Your task to perform on an android device: Clear all items from cart on target.com. Add "jbl charge 4" to the cart on target.com, then select checkout. Image 0: 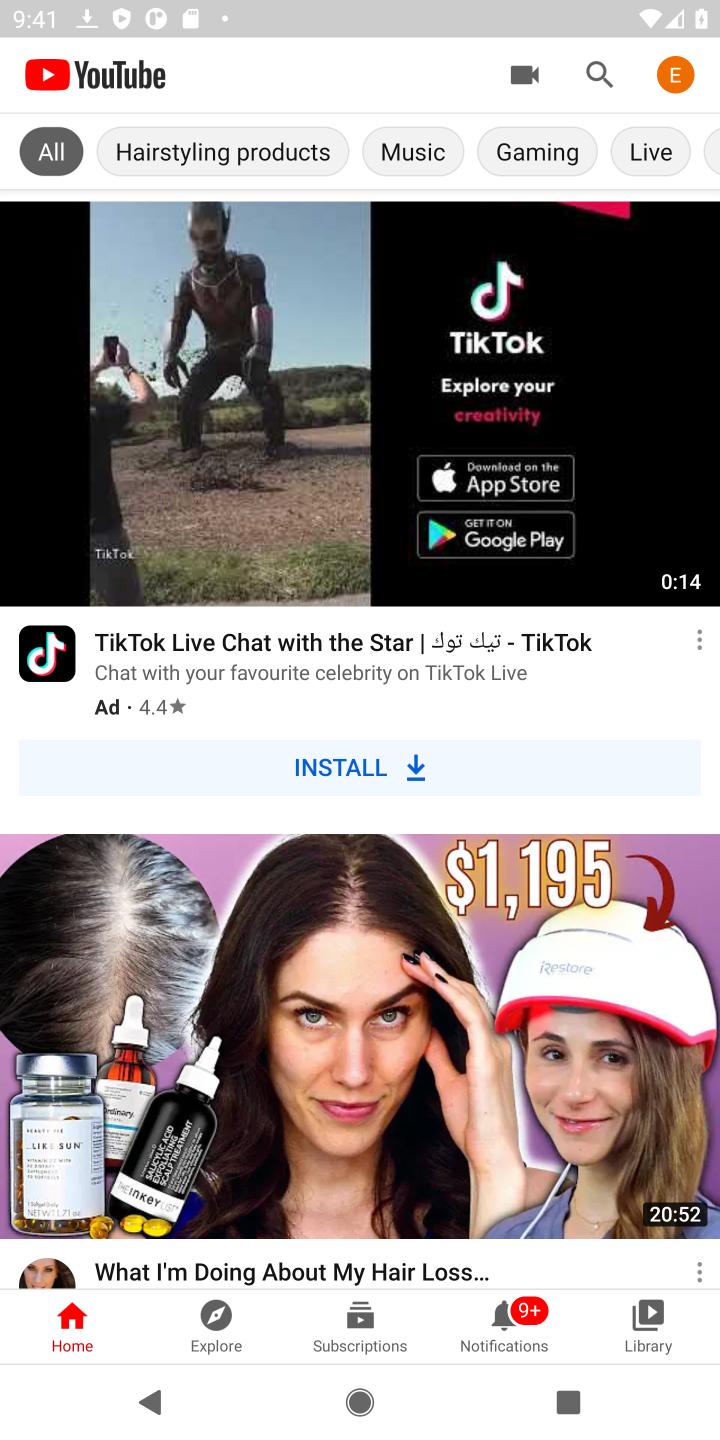
Step 0: press home button
Your task to perform on an android device: Clear all items from cart on target.com. Add "jbl charge 4" to the cart on target.com, then select checkout. Image 1: 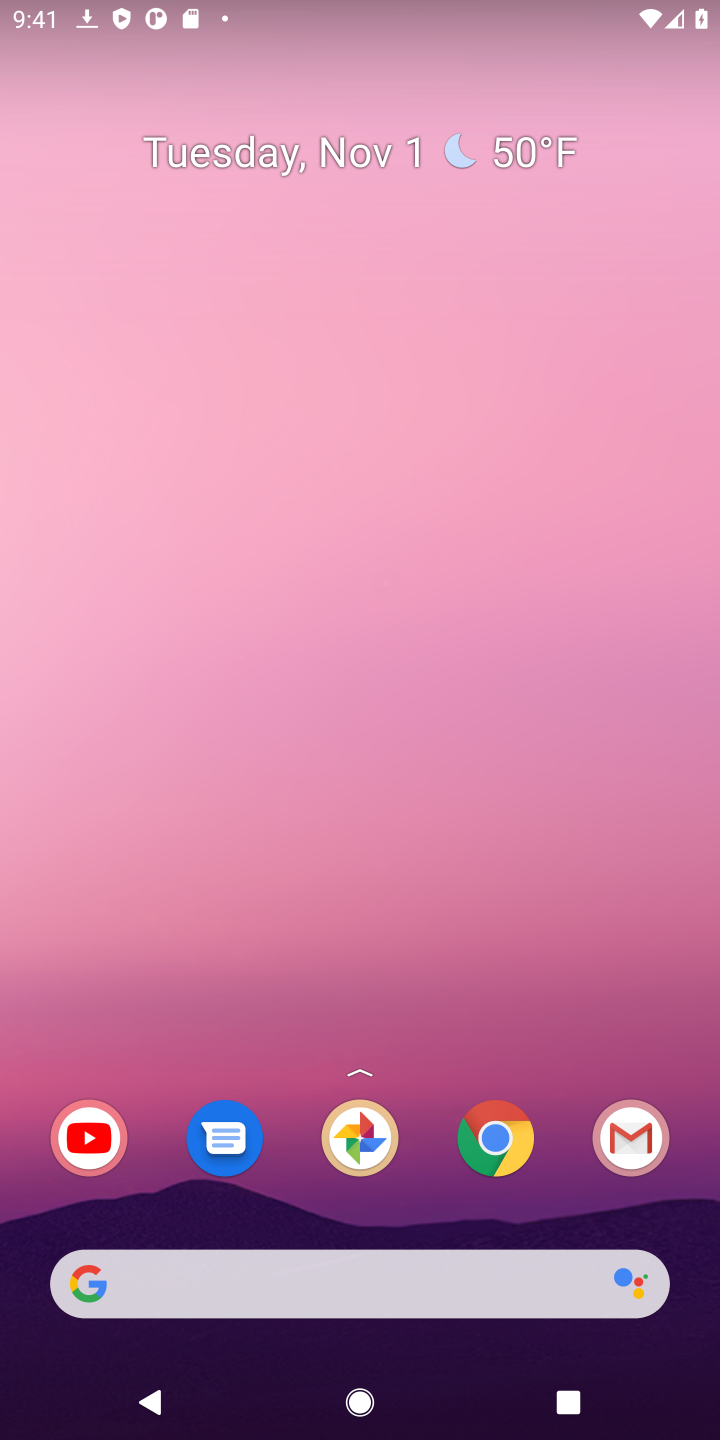
Step 1: click (495, 1140)
Your task to perform on an android device: Clear all items from cart on target.com. Add "jbl charge 4" to the cart on target.com, then select checkout. Image 2: 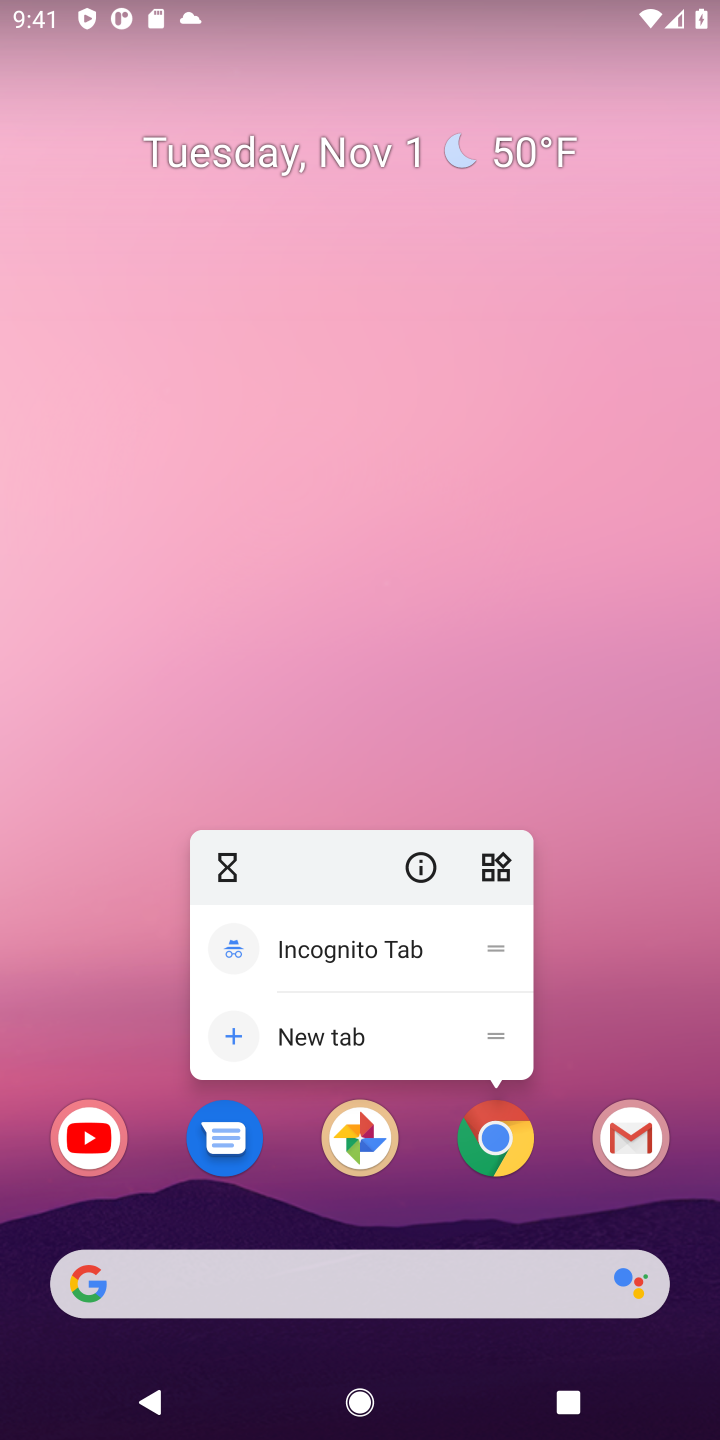
Step 2: click (500, 1141)
Your task to perform on an android device: Clear all items from cart on target.com. Add "jbl charge 4" to the cart on target.com, then select checkout. Image 3: 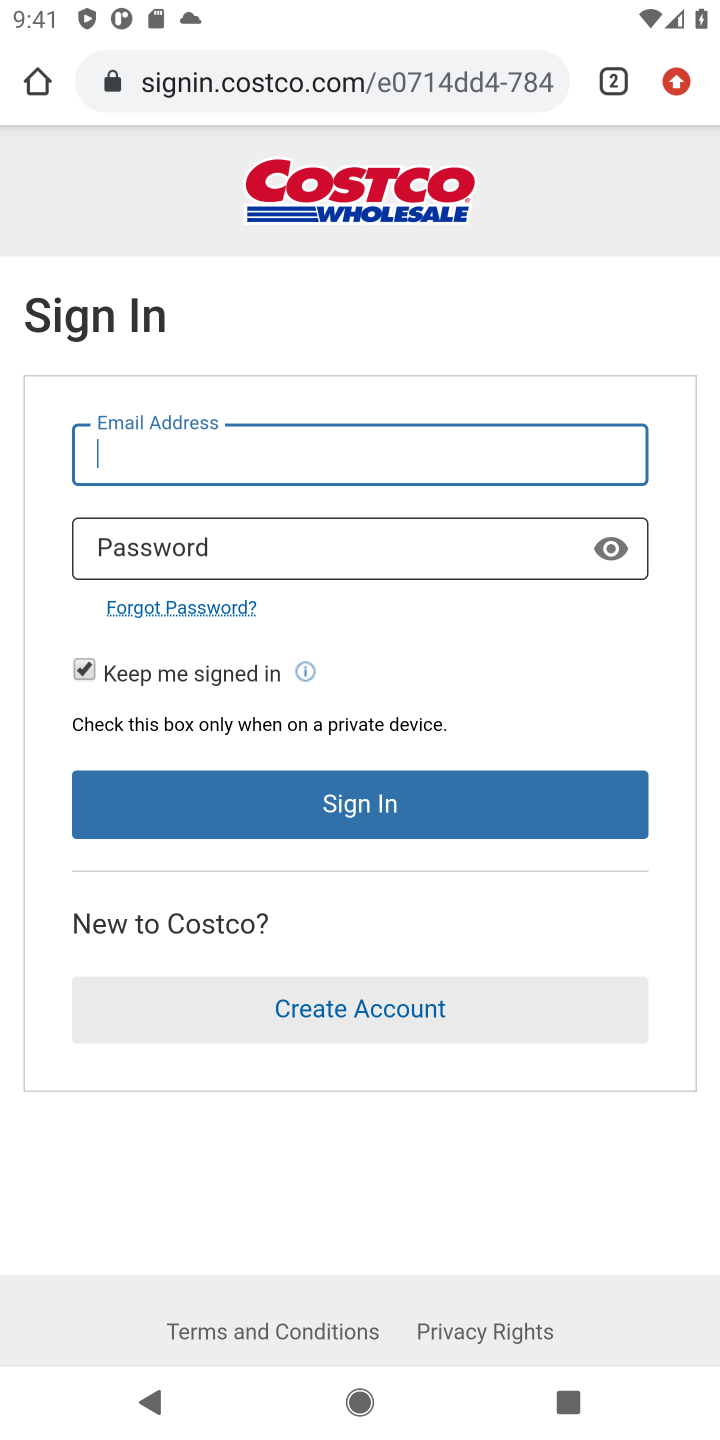
Step 3: click (259, 85)
Your task to perform on an android device: Clear all items from cart on target.com. Add "jbl charge 4" to the cart on target.com, then select checkout. Image 4: 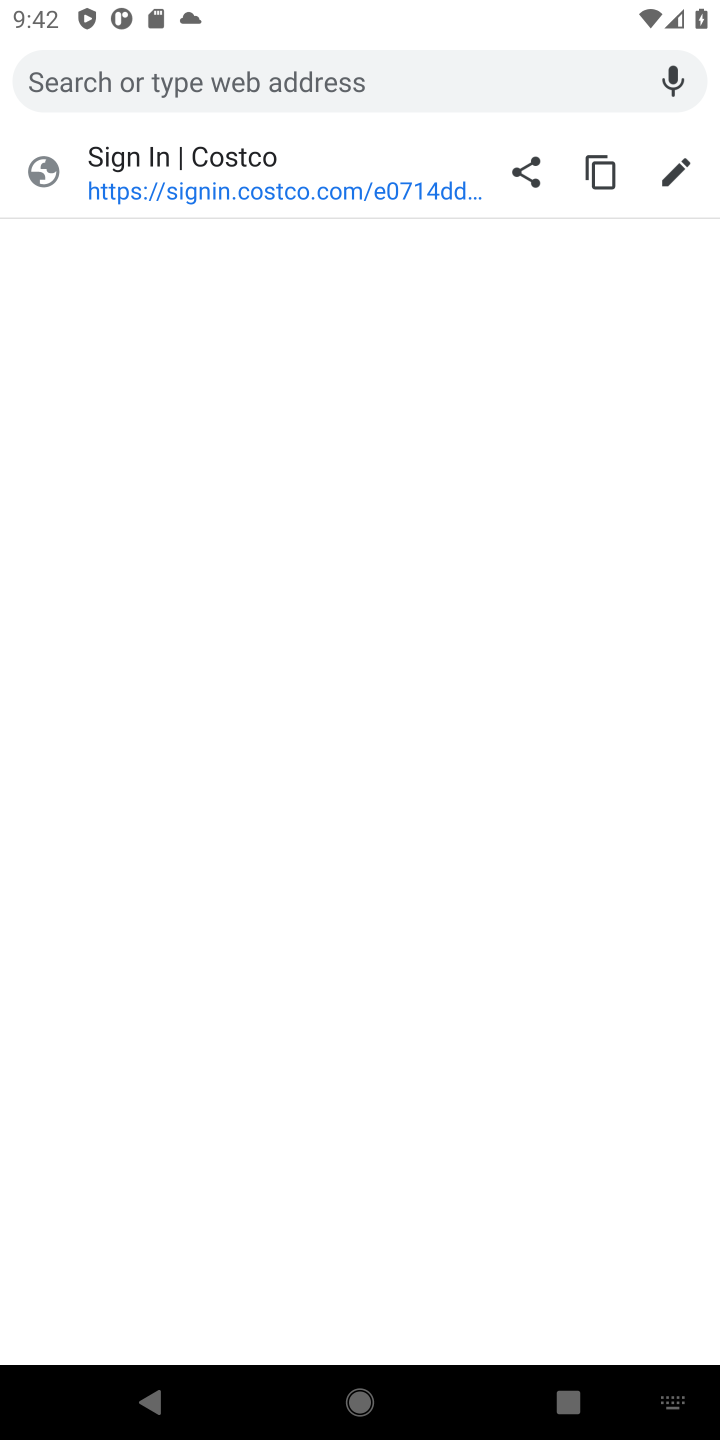
Step 4: type "target.com"
Your task to perform on an android device: Clear all items from cart on target.com. Add "jbl charge 4" to the cart on target.com, then select checkout. Image 5: 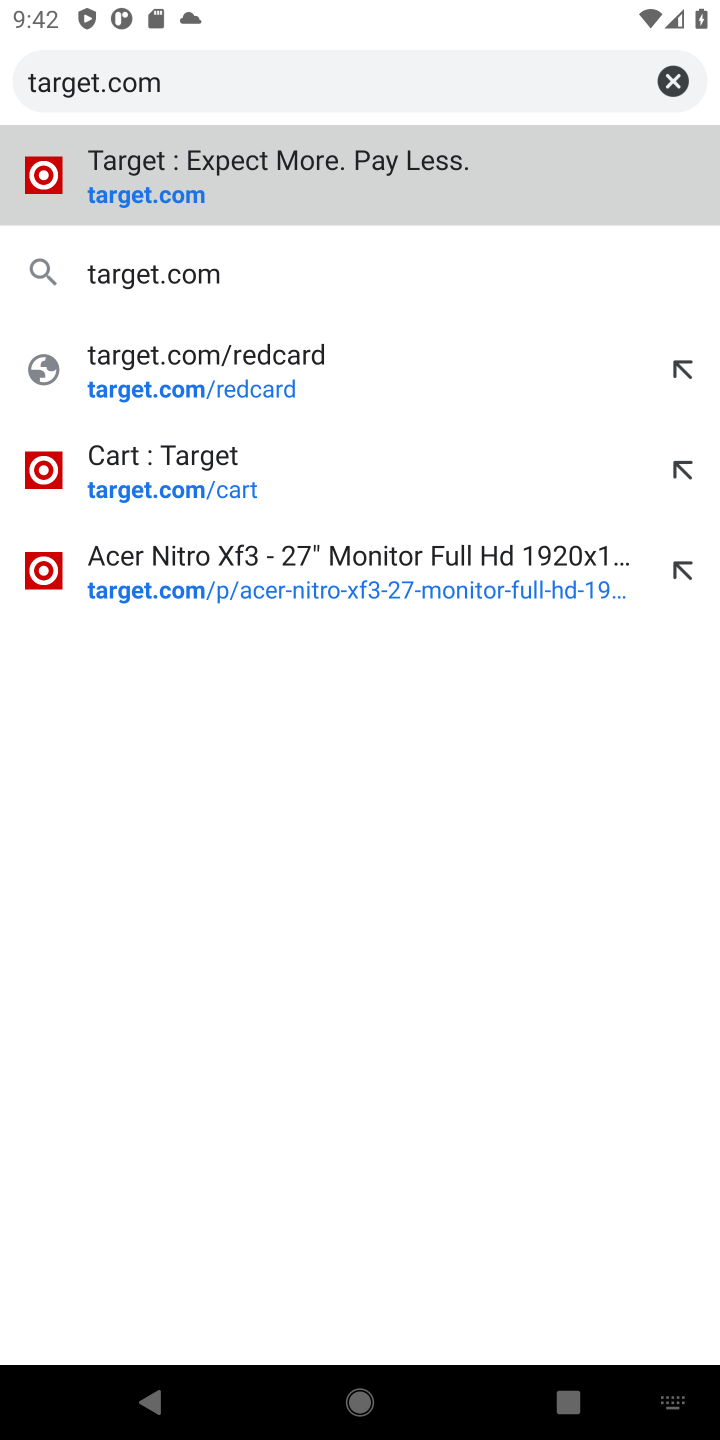
Step 5: click (130, 290)
Your task to perform on an android device: Clear all items from cart on target.com. Add "jbl charge 4" to the cart on target.com, then select checkout. Image 6: 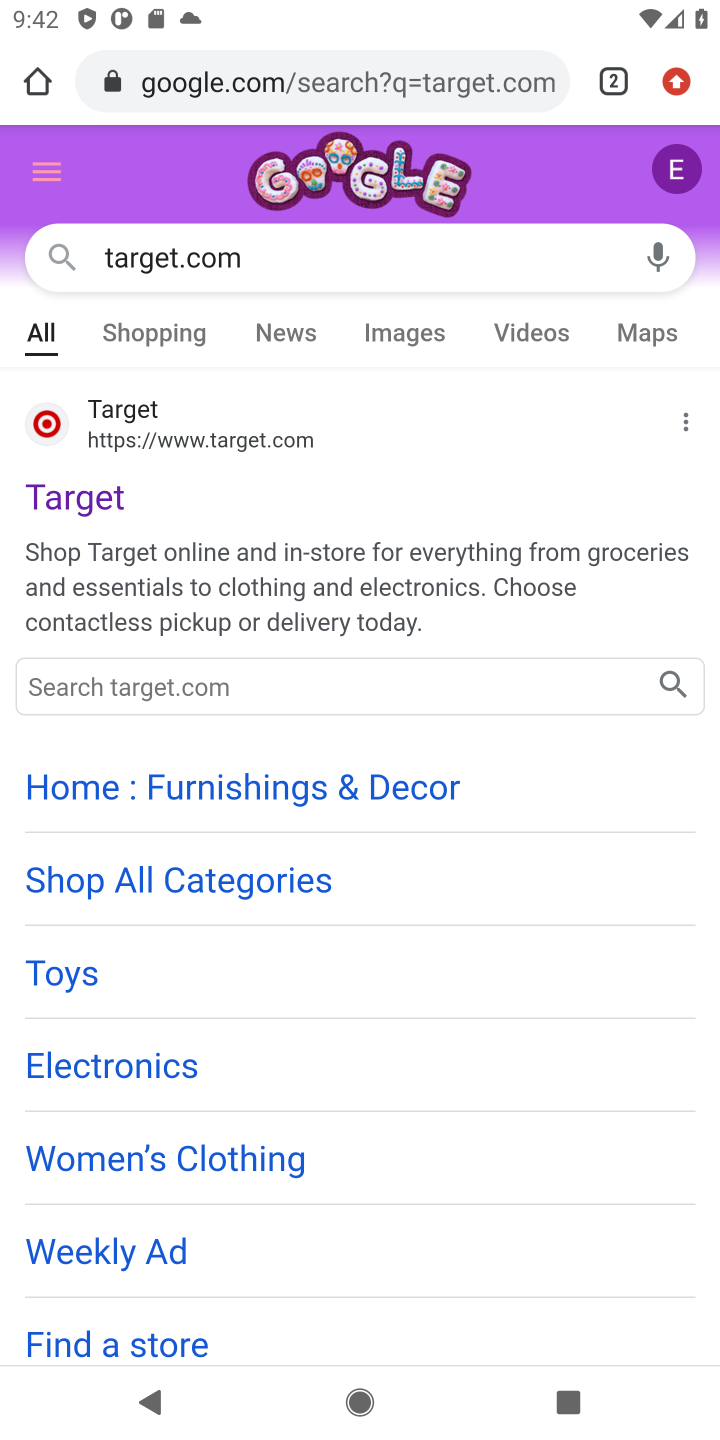
Step 6: click (143, 464)
Your task to perform on an android device: Clear all items from cart on target.com. Add "jbl charge 4" to the cart on target.com, then select checkout. Image 7: 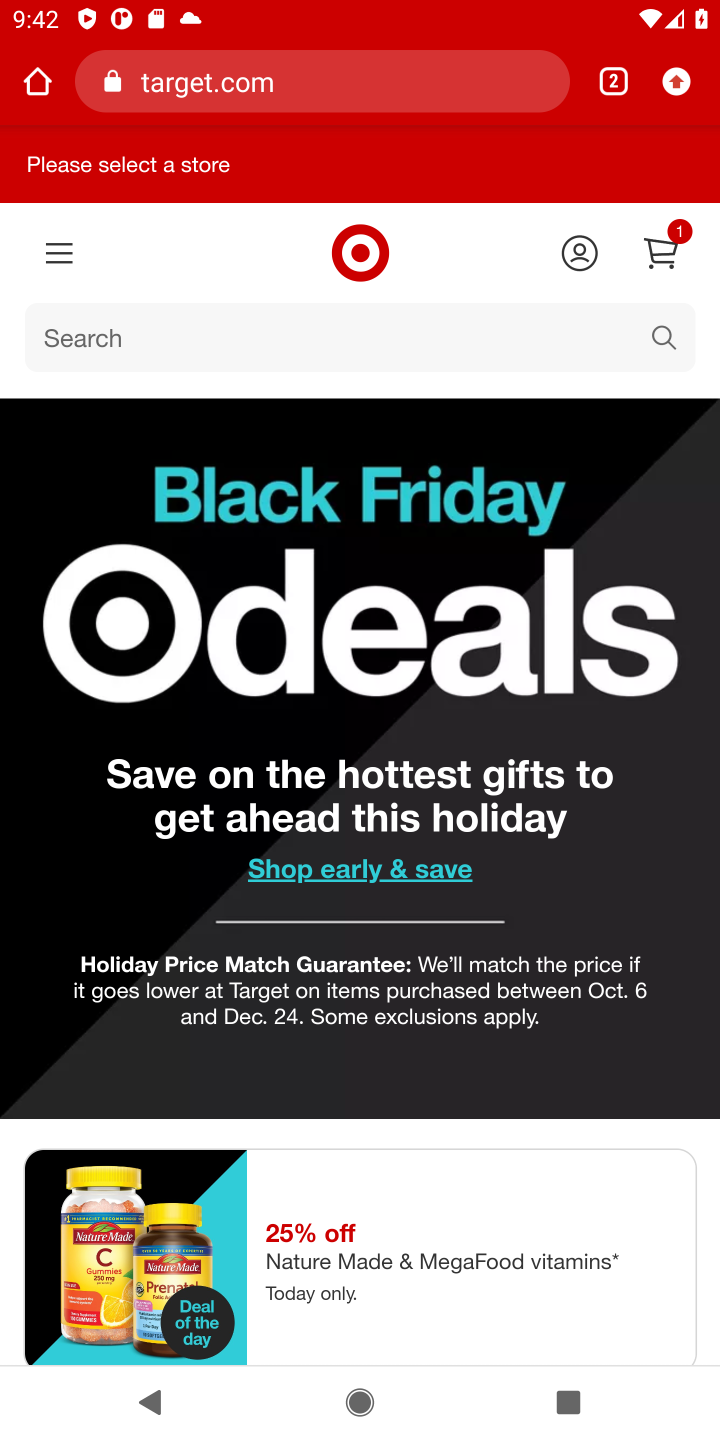
Step 7: click (205, 321)
Your task to perform on an android device: Clear all items from cart on target.com. Add "jbl charge 4" to the cart on target.com, then select checkout. Image 8: 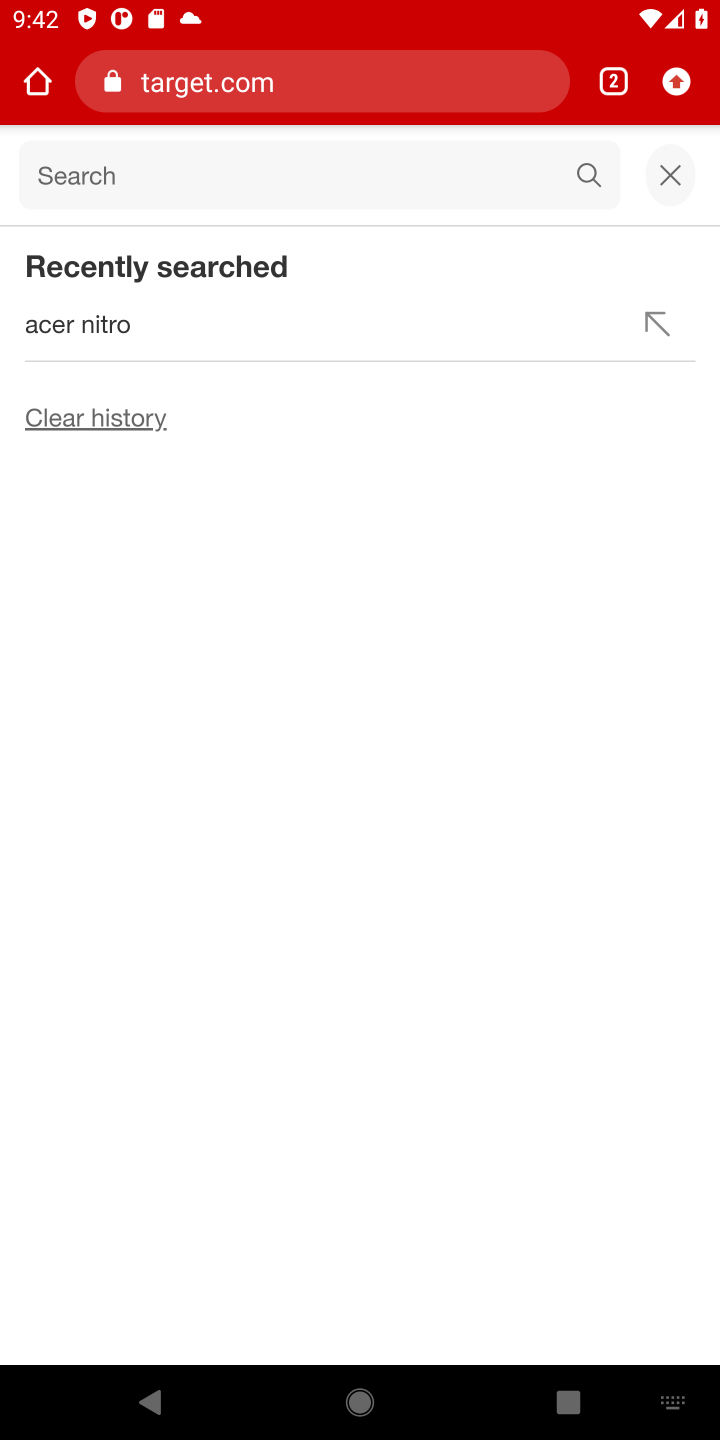
Step 8: type "jbl charge 4"
Your task to perform on an android device: Clear all items from cart on target.com. Add "jbl charge 4" to the cart on target.com, then select checkout. Image 9: 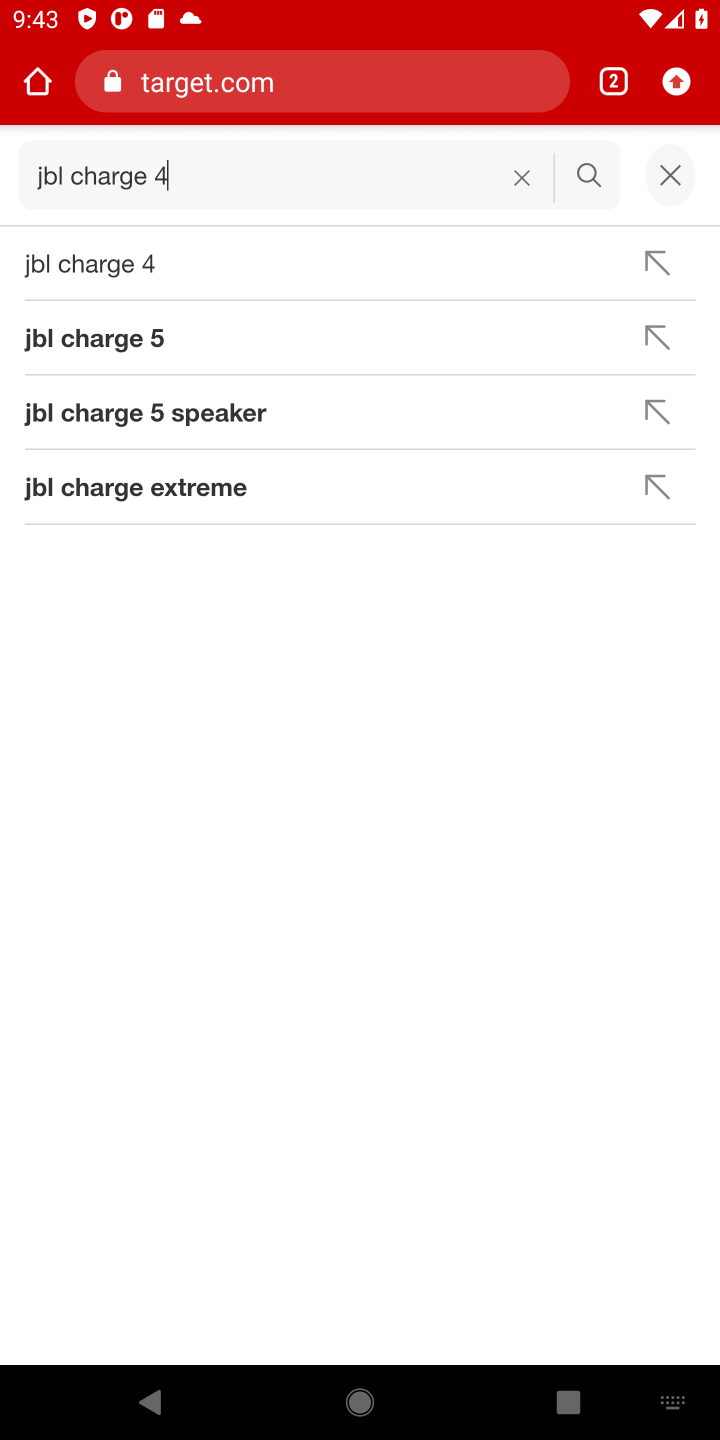
Step 9: click (598, 181)
Your task to perform on an android device: Clear all items from cart on target.com. Add "jbl charge 4" to the cart on target.com, then select checkout. Image 10: 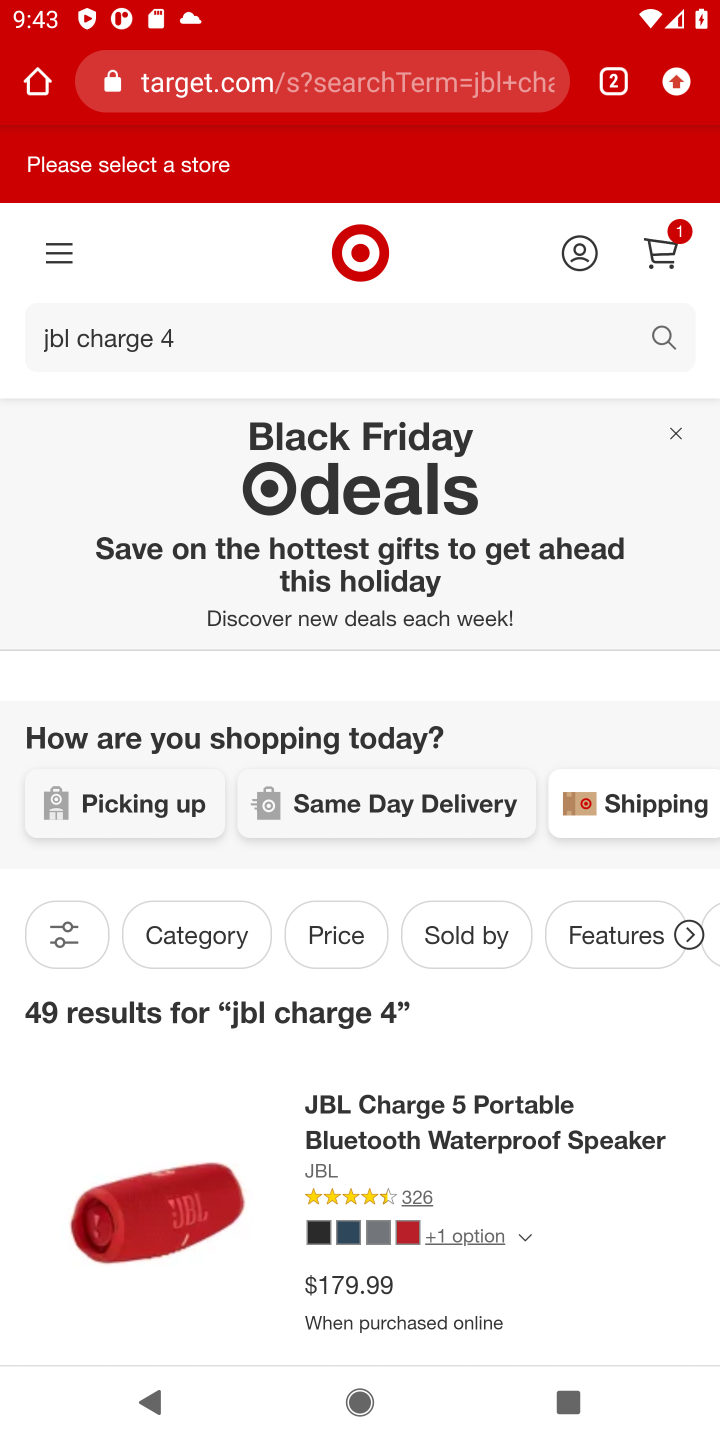
Step 10: drag from (554, 1190) to (537, 618)
Your task to perform on an android device: Clear all items from cart on target.com. Add "jbl charge 4" to the cart on target.com, then select checkout. Image 11: 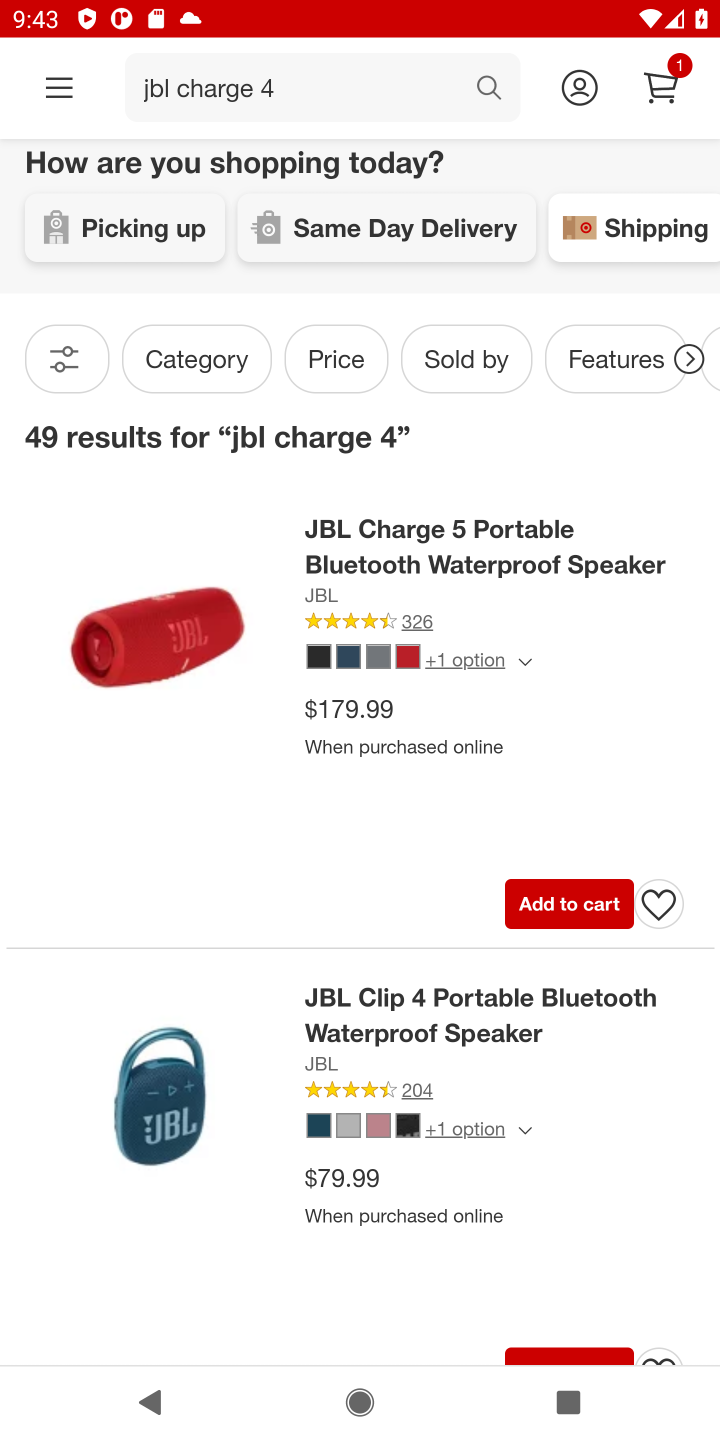
Step 11: drag from (587, 919) to (590, 664)
Your task to perform on an android device: Clear all items from cart on target.com. Add "jbl charge 4" to the cart on target.com, then select checkout. Image 12: 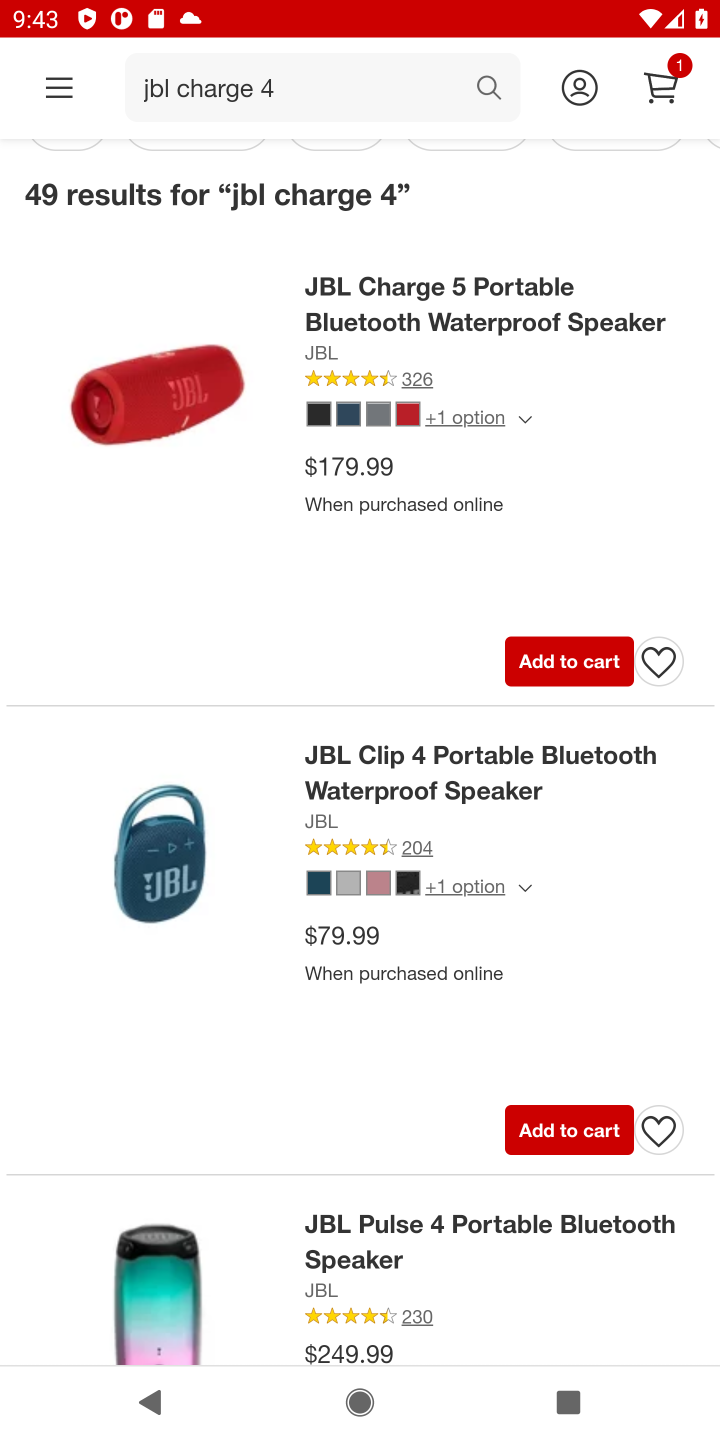
Step 12: drag from (480, 1242) to (557, 490)
Your task to perform on an android device: Clear all items from cart on target.com. Add "jbl charge 4" to the cart on target.com, then select checkout. Image 13: 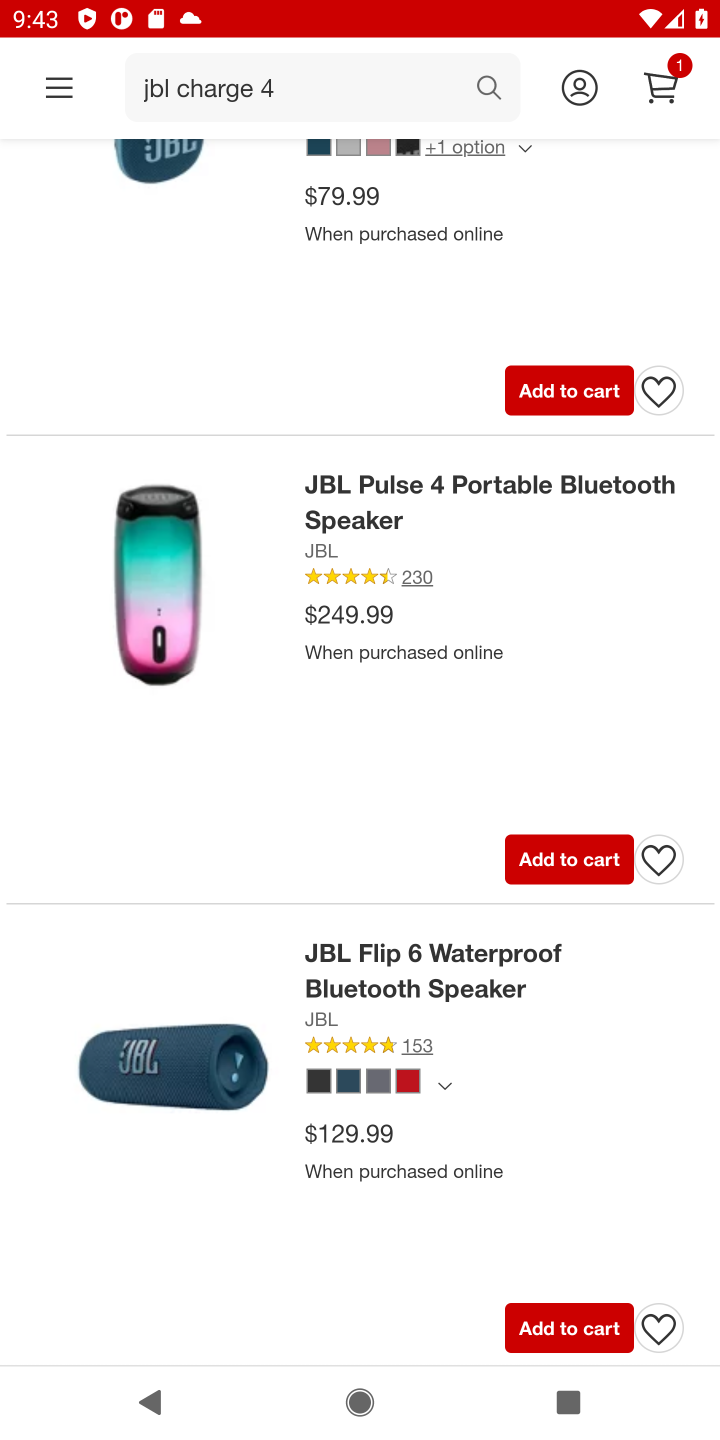
Step 13: drag from (451, 1196) to (486, 633)
Your task to perform on an android device: Clear all items from cart on target.com. Add "jbl charge 4" to the cart on target.com, then select checkout. Image 14: 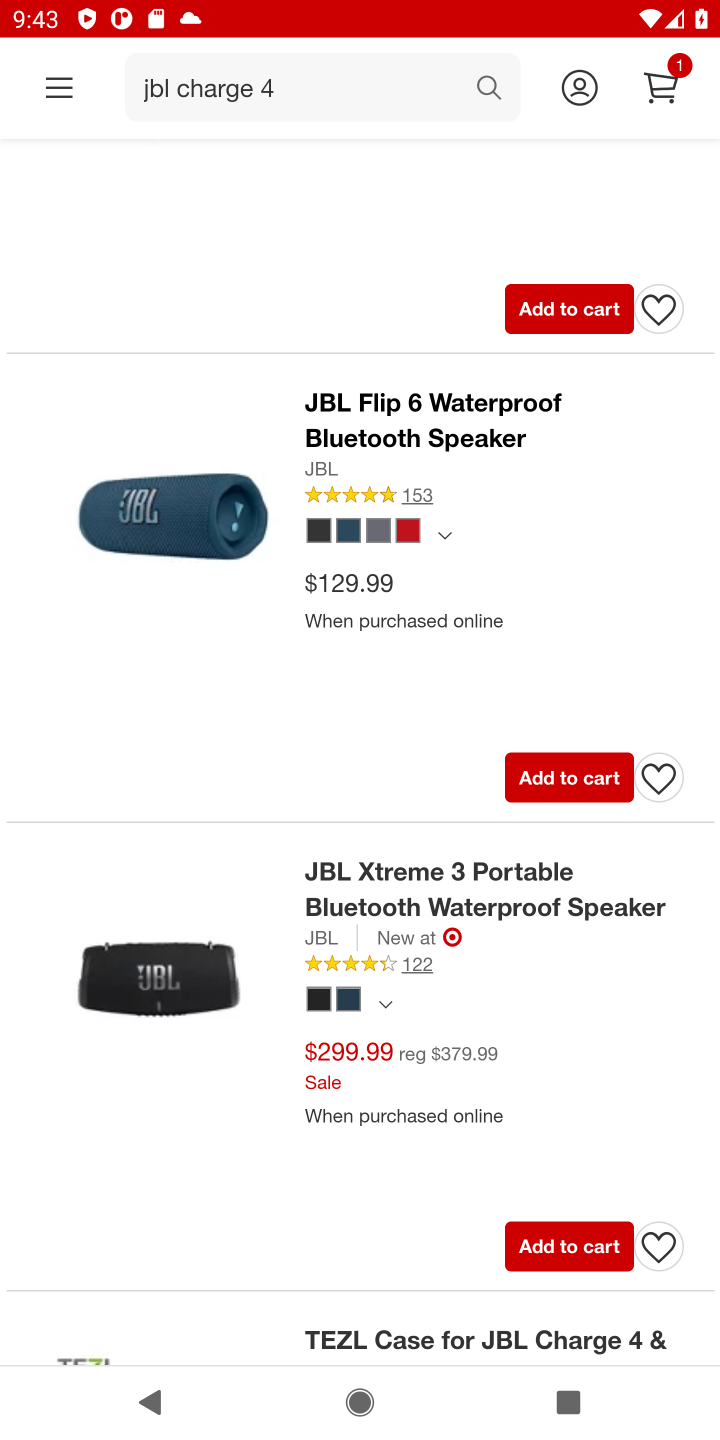
Step 14: drag from (494, 1032) to (498, 503)
Your task to perform on an android device: Clear all items from cart on target.com. Add "jbl charge 4" to the cart on target.com, then select checkout. Image 15: 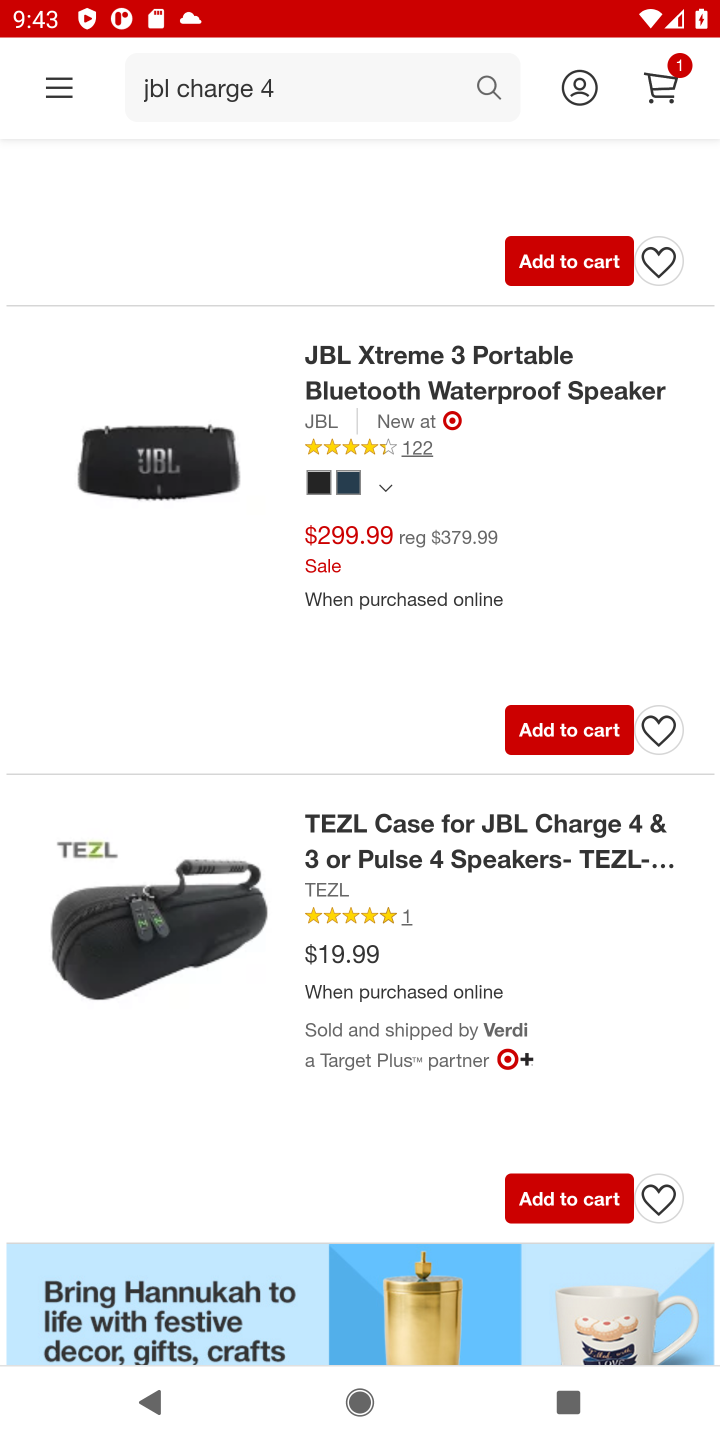
Step 15: click (515, 845)
Your task to perform on an android device: Clear all items from cart on target.com. Add "jbl charge 4" to the cart on target.com, then select checkout. Image 16: 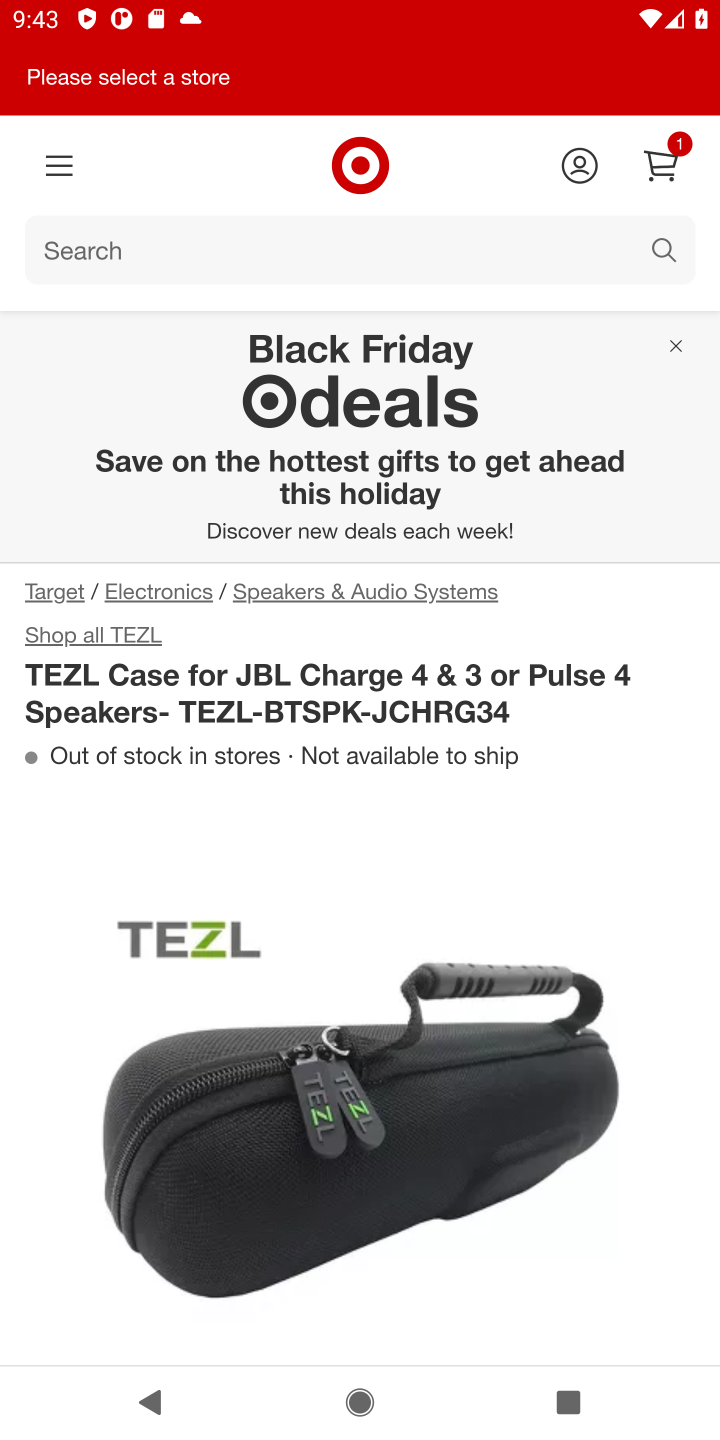
Step 16: drag from (479, 1102) to (559, 579)
Your task to perform on an android device: Clear all items from cart on target.com. Add "jbl charge 4" to the cart on target.com, then select checkout. Image 17: 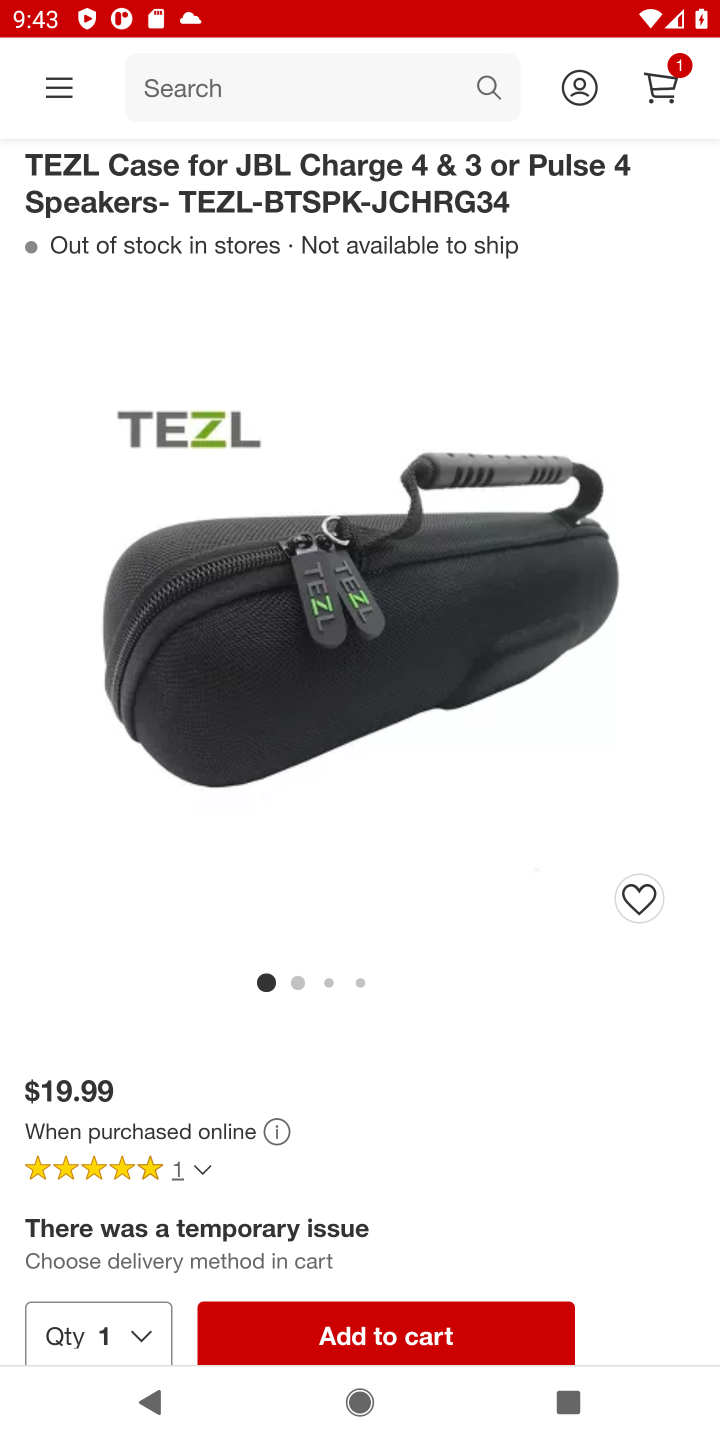
Step 17: click (371, 1316)
Your task to perform on an android device: Clear all items from cart on target.com. Add "jbl charge 4" to the cart on target.com, then select checkout. Image 18: 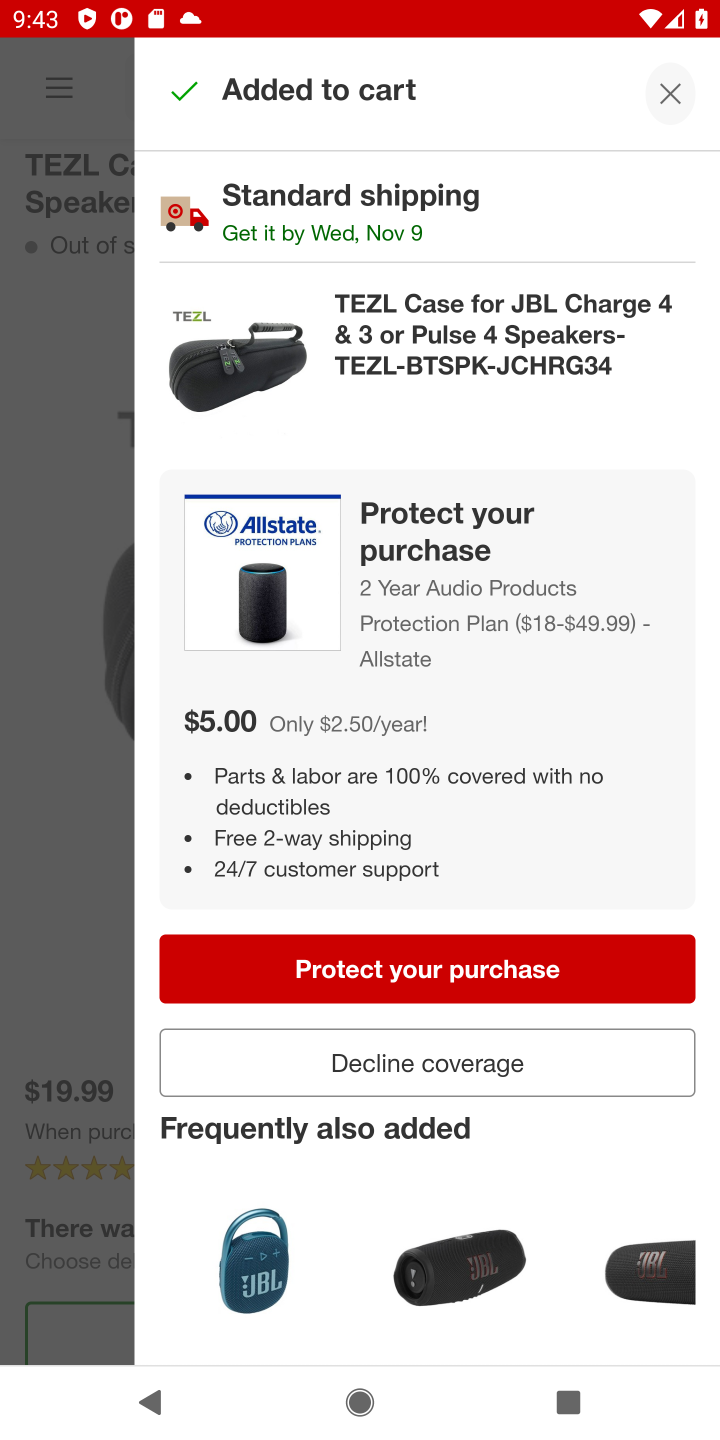
Step 18: click (404, 1055)
Your task to perform on an android device: Clear all items from cart on target.com. Add "jbl charge 4" to the cart on target.com, then select checkout. Image 19: 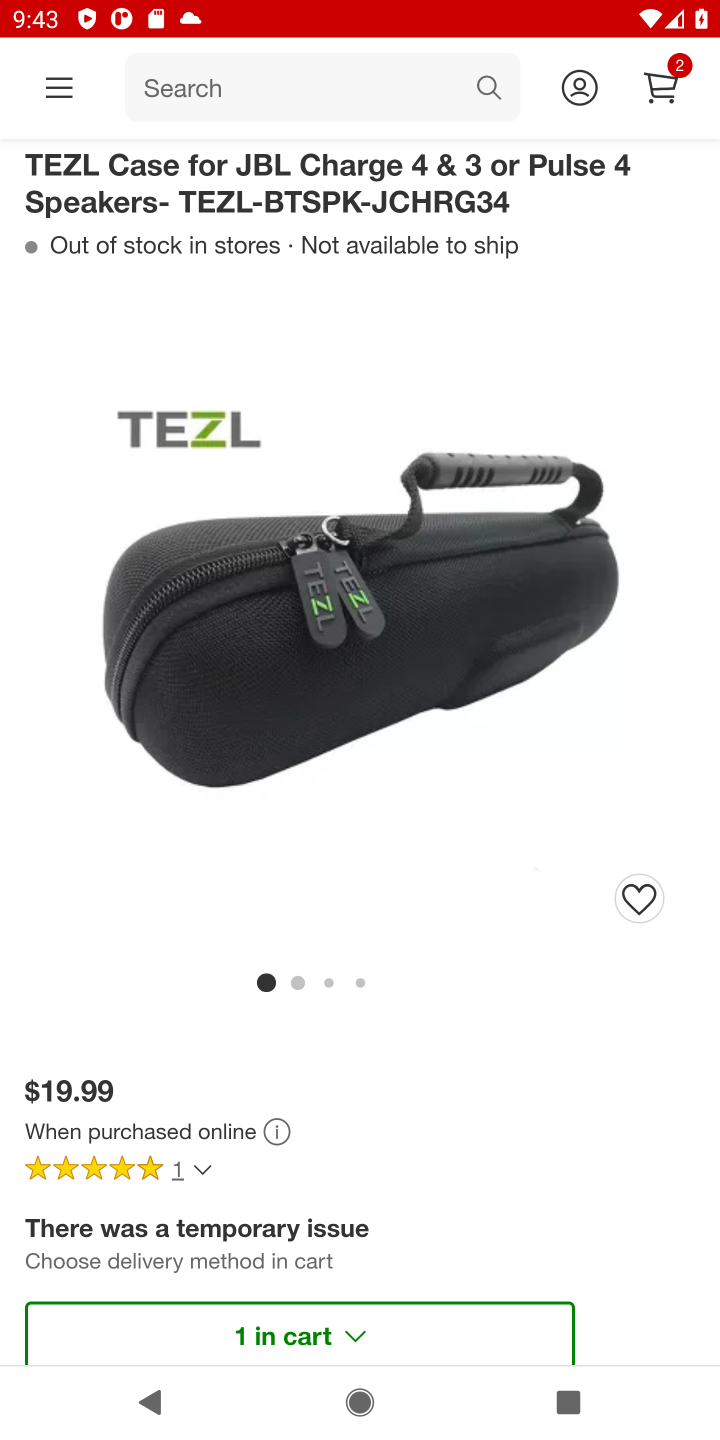
Step 19: click (661, 67)
Your task to perform on an android device: Clear all items from cart on target.com. Add "jbl charge 4" to the cart on target.com, then select checkout. Image 20: 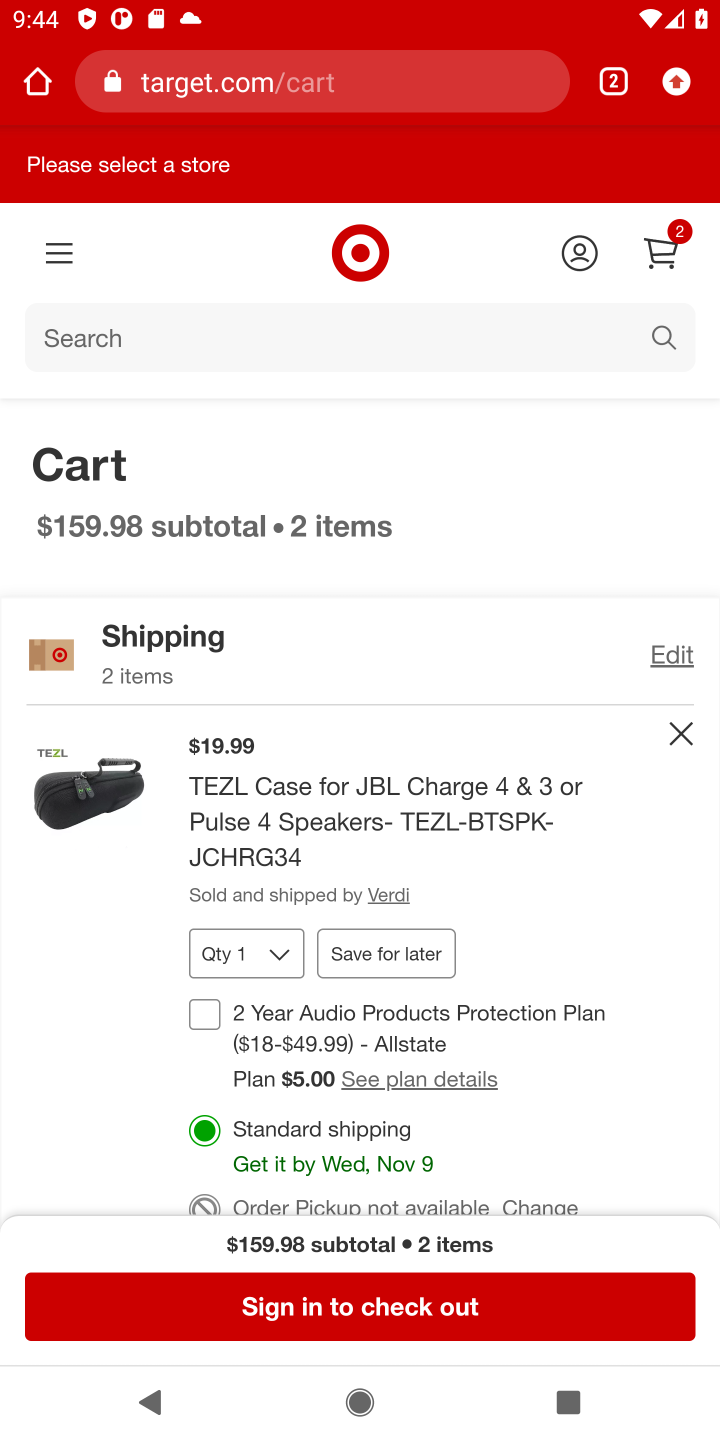
Step 20: click (261, 1297)
Your task to perform on an android device: Clear all items from cart on target.com. Add "jbl charge 4" to the cart on target.com, then select checkout. Image 21: 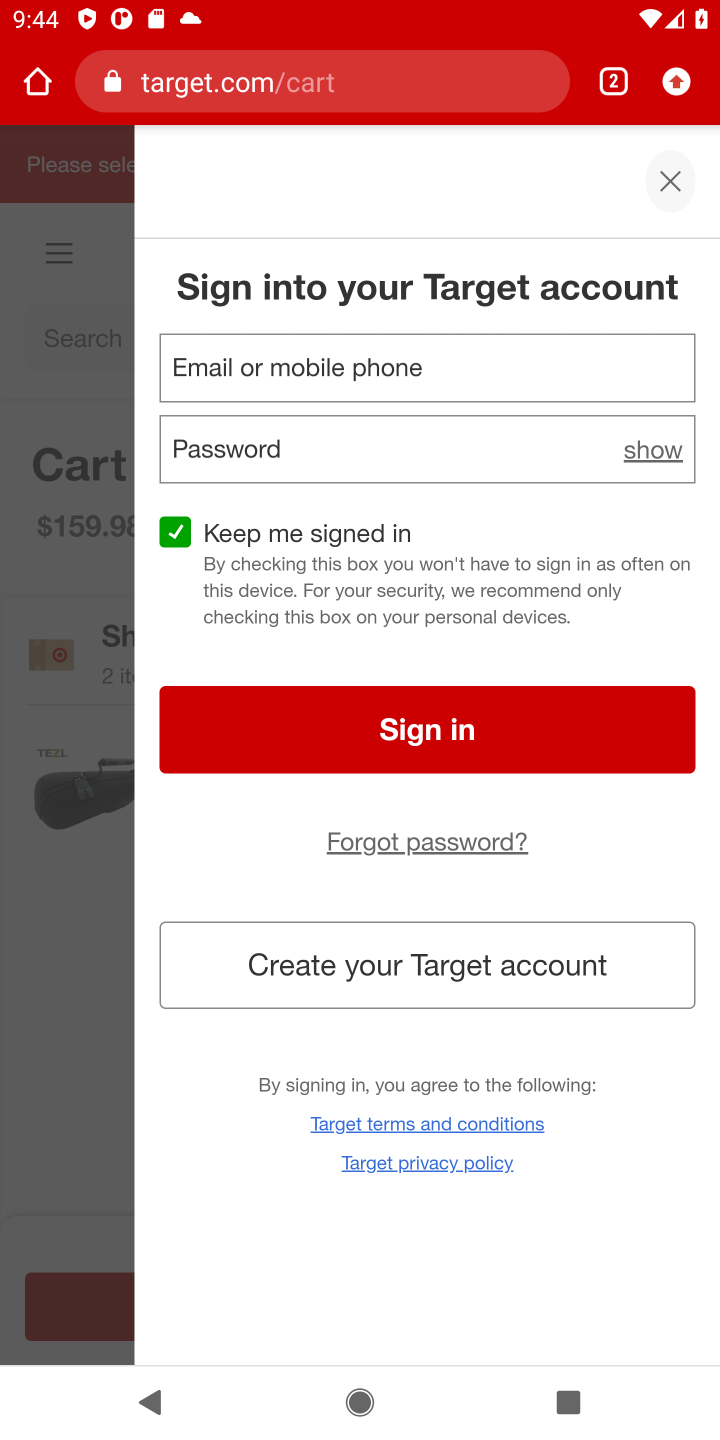
Step 21: task complete